Your task to perform on an android device: open app "Indeed Job Search" (install if not already installed) Image 0: 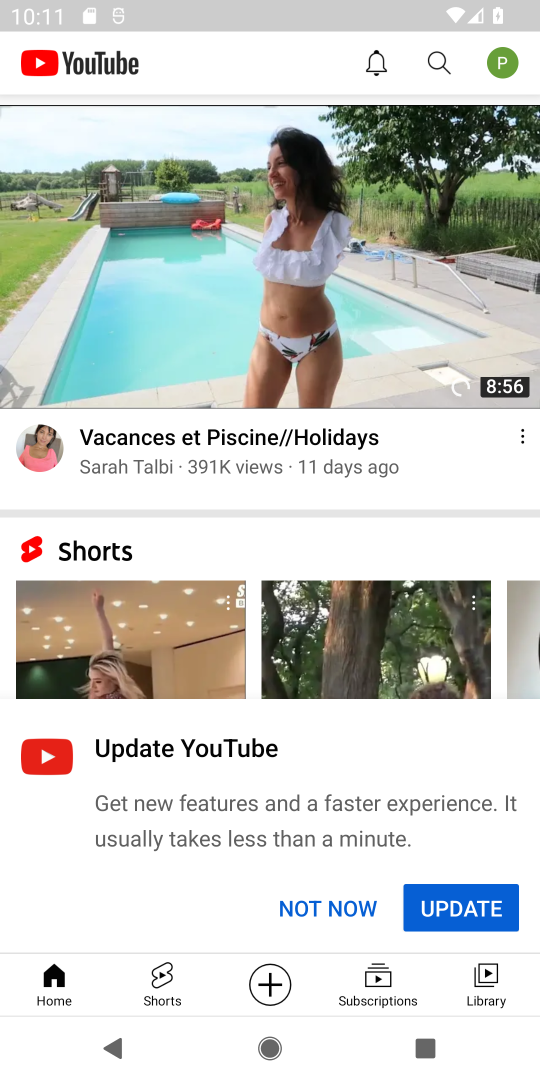
Step 0: press home button
Your task to perform on an android device: open app "Indeed Job Search" (install if not already installed) Image 1: 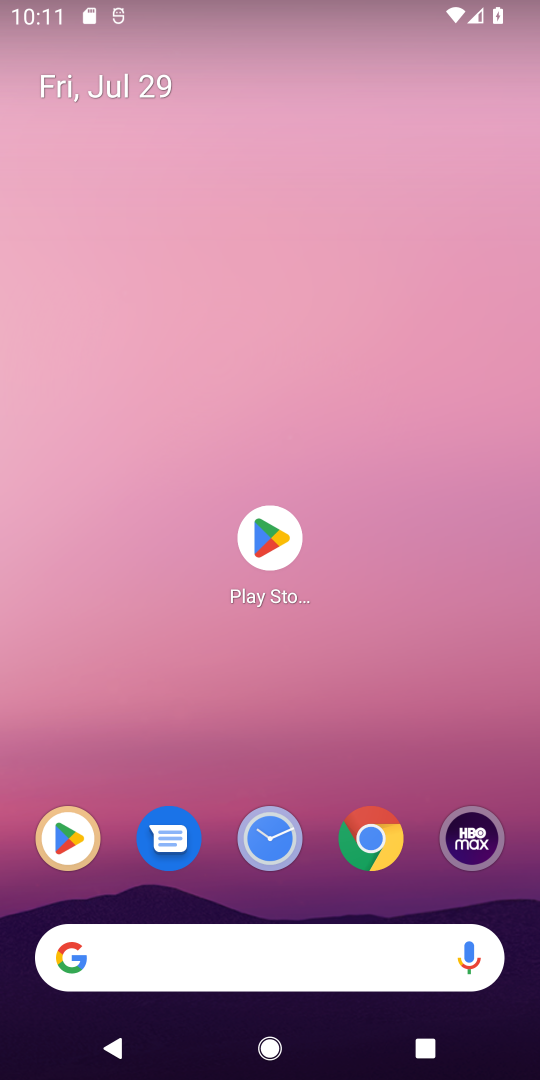
Step 1: click (270, 546)
Your task to perform on an android device: open app "Indeed Job Search" (install if not already installed) Image 2: 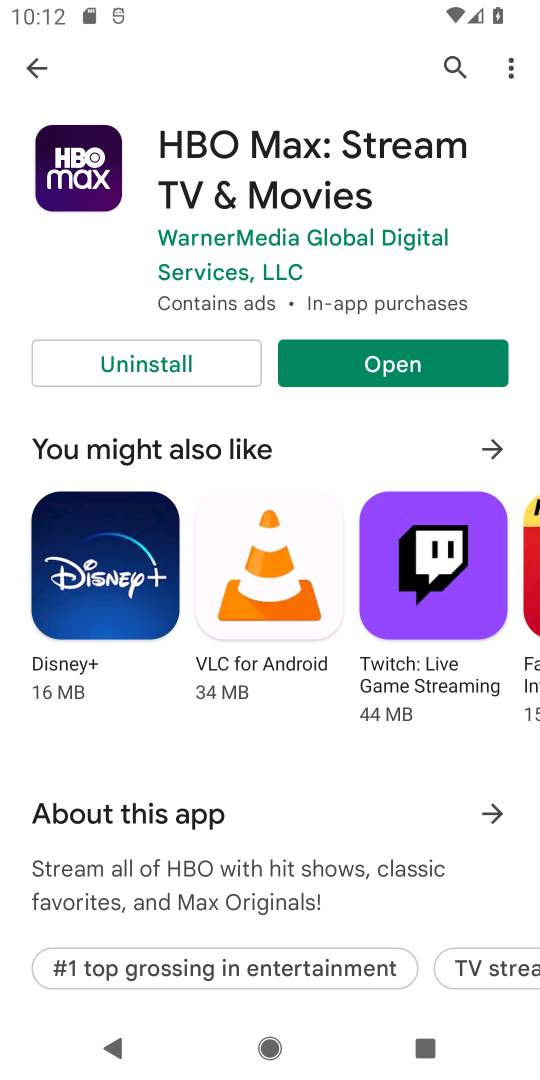
Step 2: click (452, 66)
Your task to perform on an android device: open app "Indeed Job Search" (install if not already installed) Image 3: 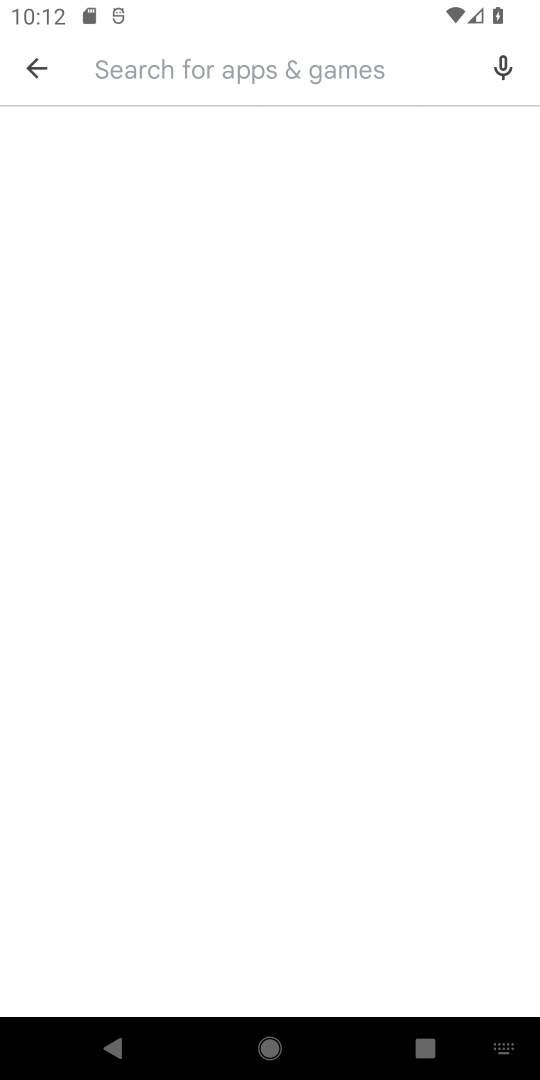
Step 3: type "Indeed Job Search"
Your task to perform on an android device: open app "Indeed Job Search" (install if not already installed) Image 4: 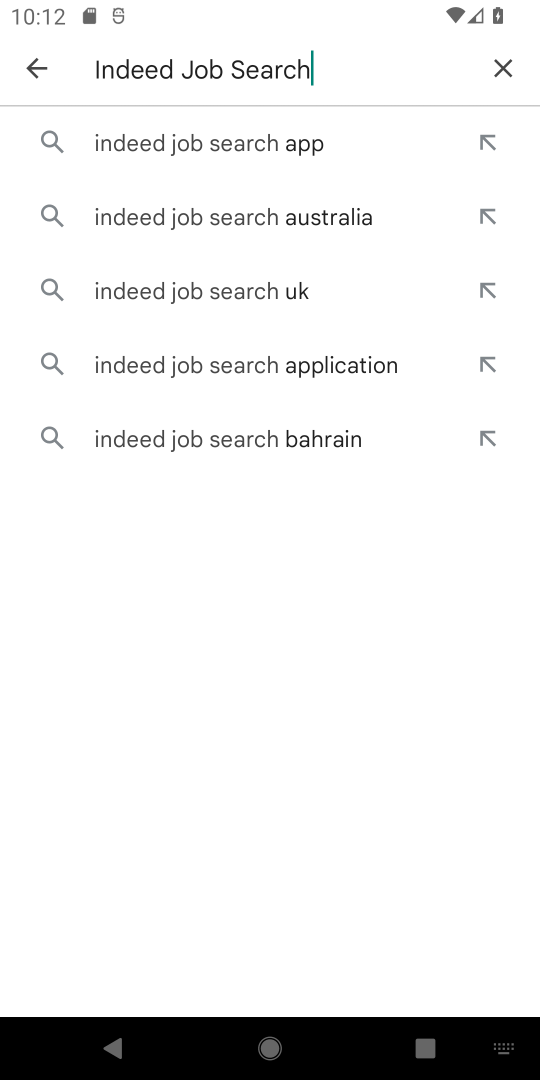
Step 4: click (290, 133)
Your task to perform on an android device: open app "Indeed Job Search" (install if not already installed) Image 5: 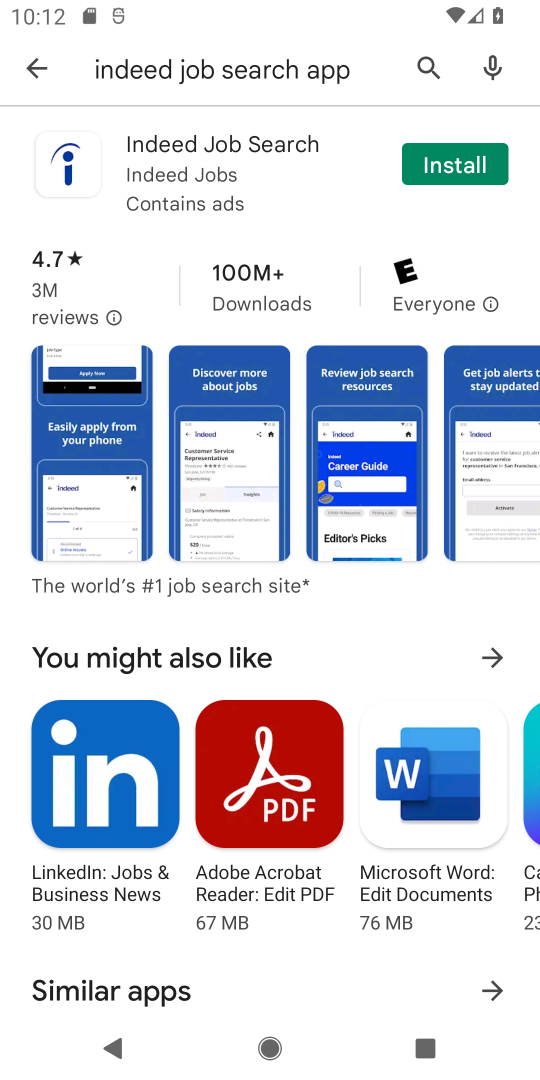
Step 5: click (436, 161)
Your task to perform on an android device: open app "Indeed Job Search" (install if not already installed) Image 6: 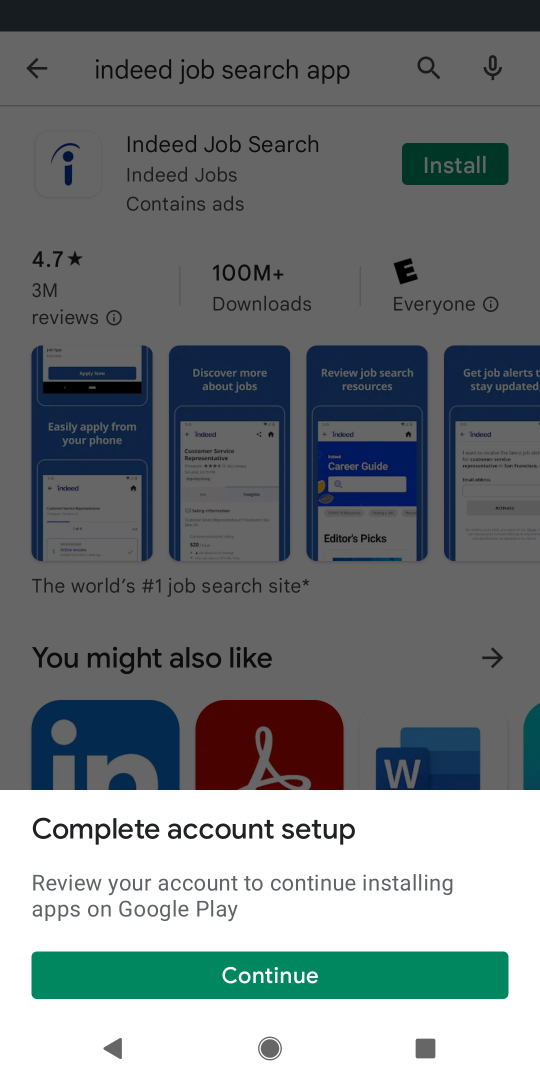
Step 6: click (293, 979)
Your task to perform on an android device: open app "Indeed Job Search" (install if not already installed) Image 7: 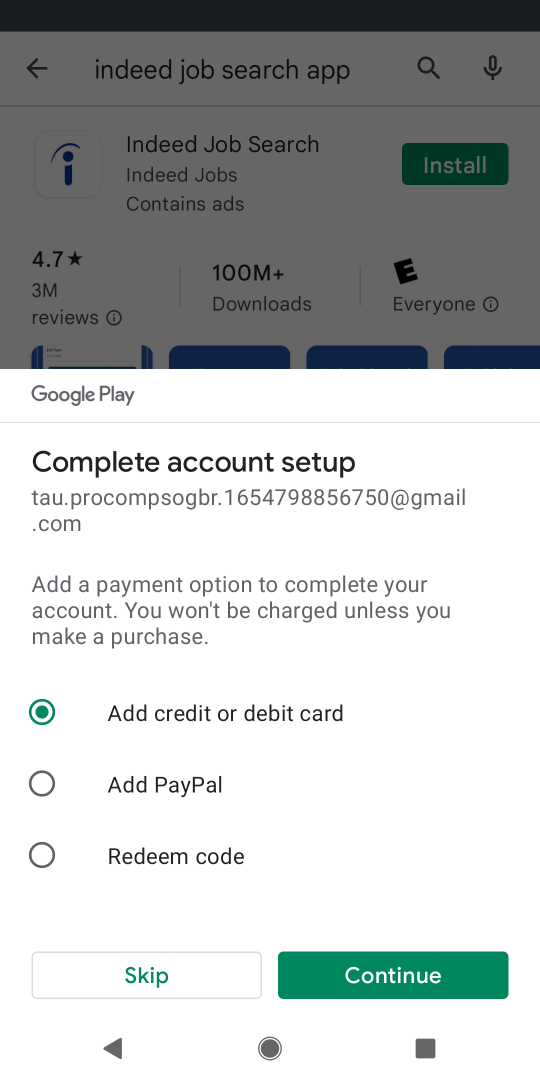
Step 7: click (172, 966)
Your task to perform on an android device: open app "Indeed Job Search" (install if not already installed) Image 8: 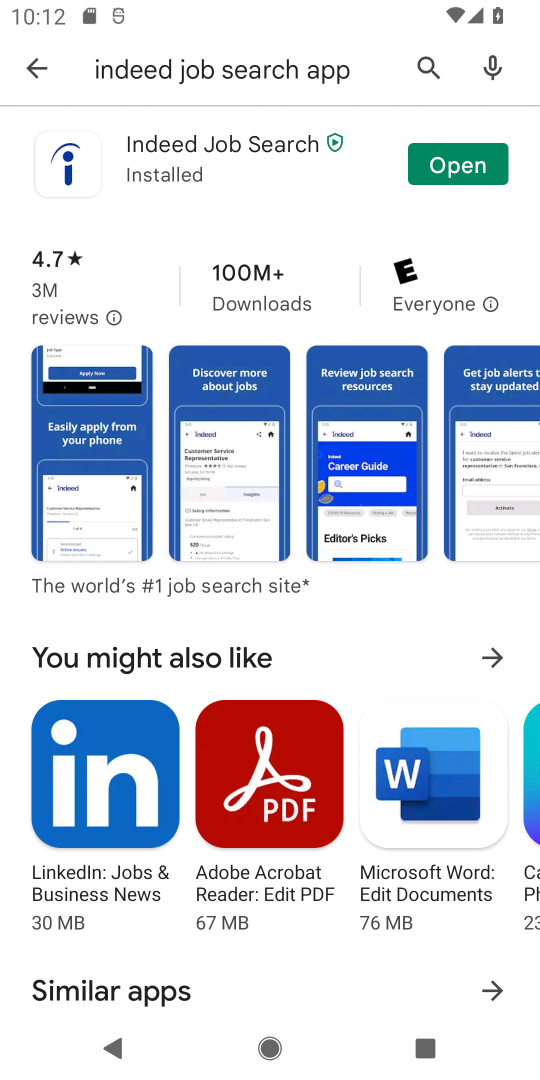
Step 8: click (458, 170)
Your task to perform on an android device: open app "Indeed Job Search" (install if not already installed) Image 9: 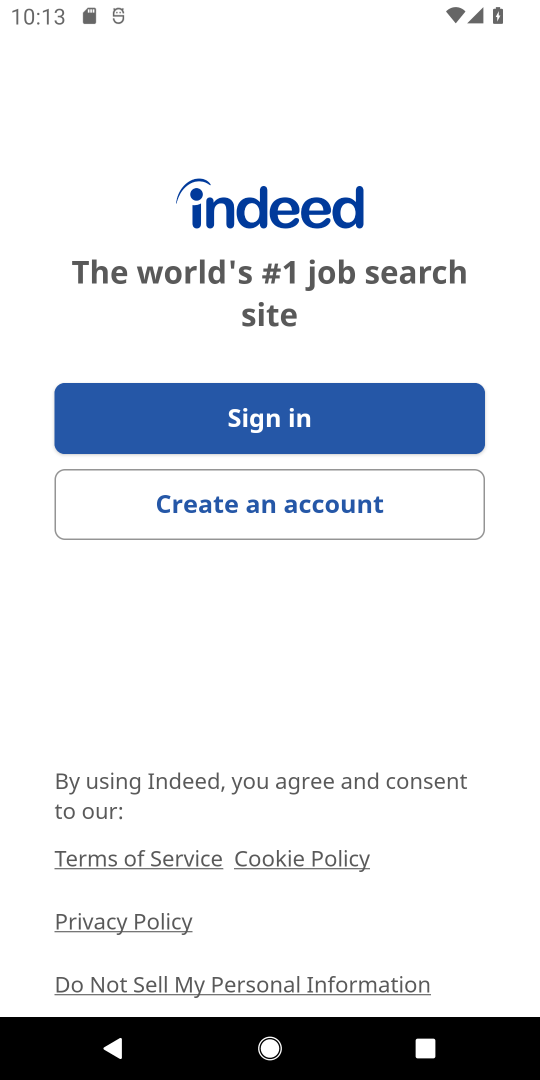
Step 9: task complete